Your task to perform on an android device: What's the weather today? Image 0: 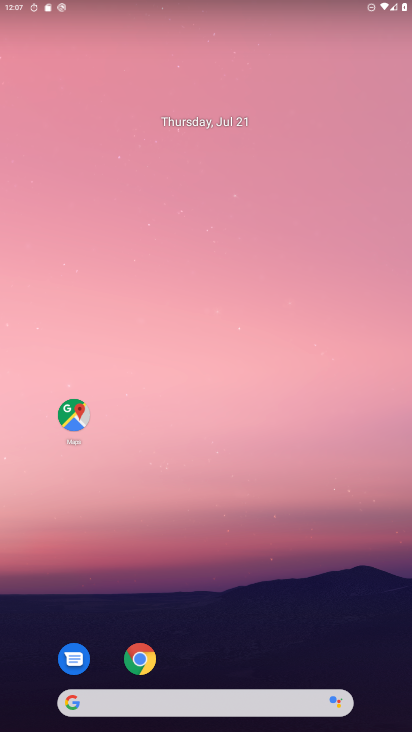
Step 0: drag from (307, 618) to (262, 21)
Your task to perform on an android device: What's the weather today? Image 1: 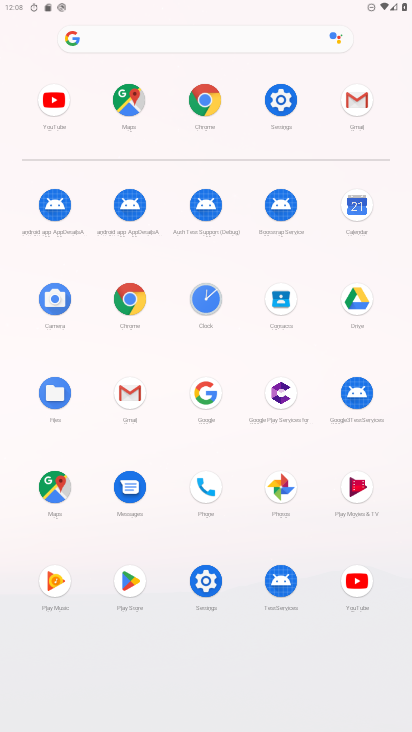
Step 1: click (209, 94)
Your task to perform on an android device: What's the weather today? Image 2: 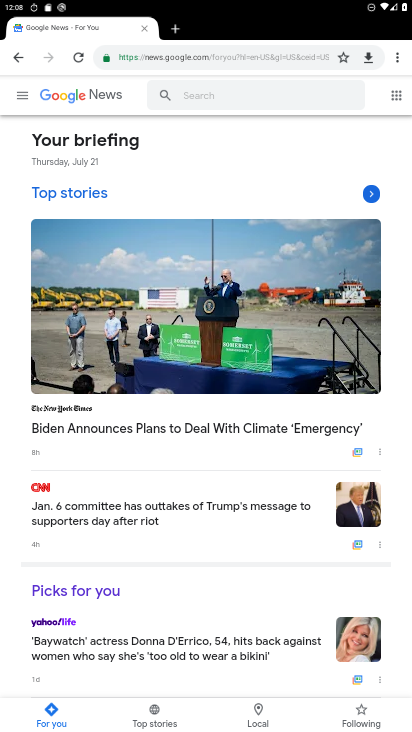
Step 2: click (244, 50)
Your task to perform on an android device: What's the weather today? Image 3: 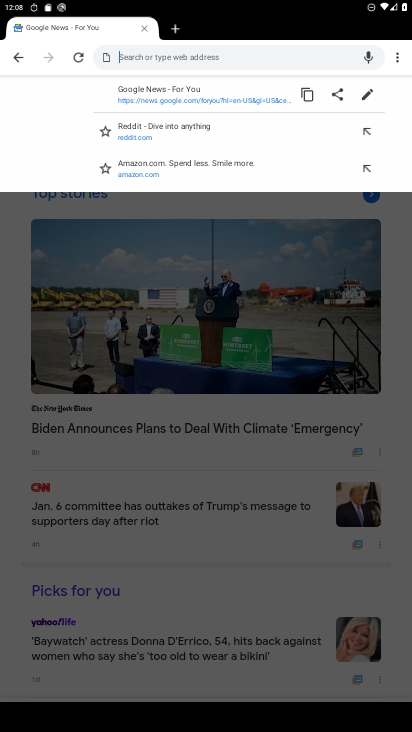
Step 3: type "weather"
Your task to perform on an android device: What's the weather today? Image 4: 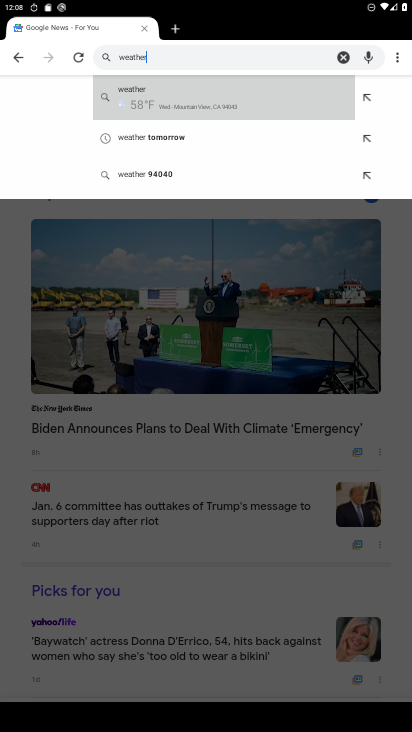
Step 4: click (181, 100)
Your task to perform on an android device: What's the weather today? Image 5: 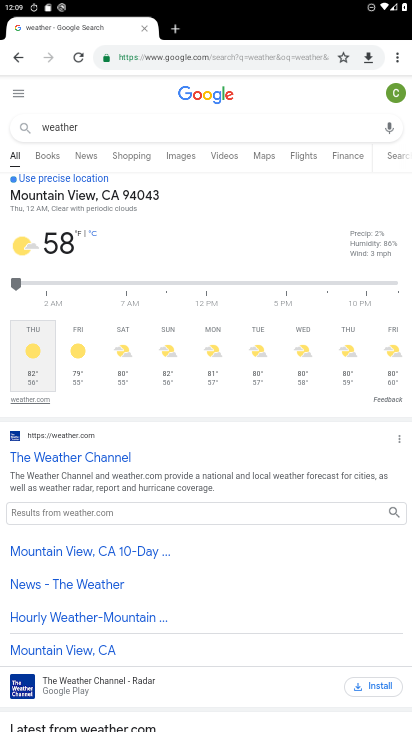
Step 5: task complete